Your task to perform on an android device: Toggle the flashlight Image 0: 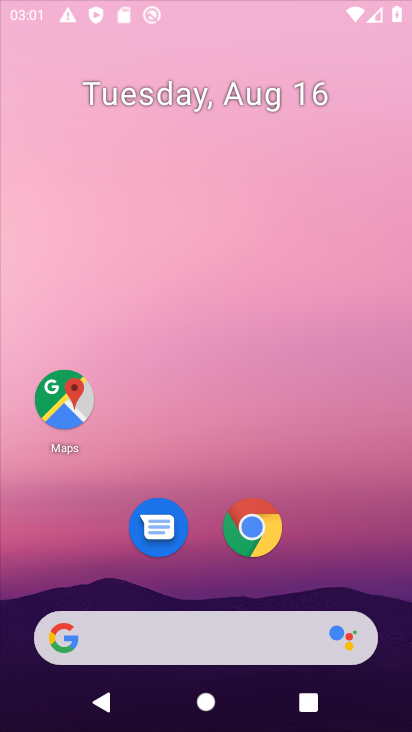
Step 0: press home button
Your task to perform on an android device: Toggle the flashlight Image 1: 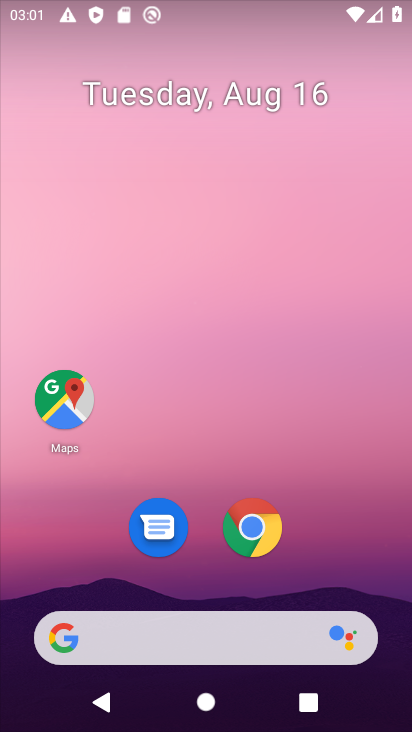
Step 1: drag from (210, 584) to (250, 40)
Your task to perform on an android device: Toggle the flashlight Image 2: 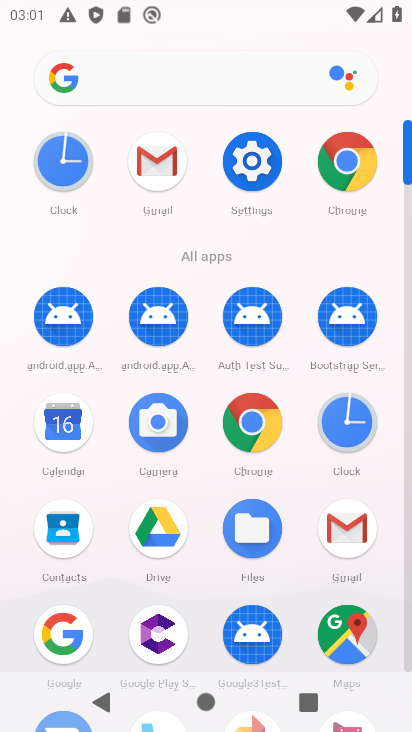
Step 2: click (254, 156)
Your task to perform on an android device: Toggle the flashlight Image 3: 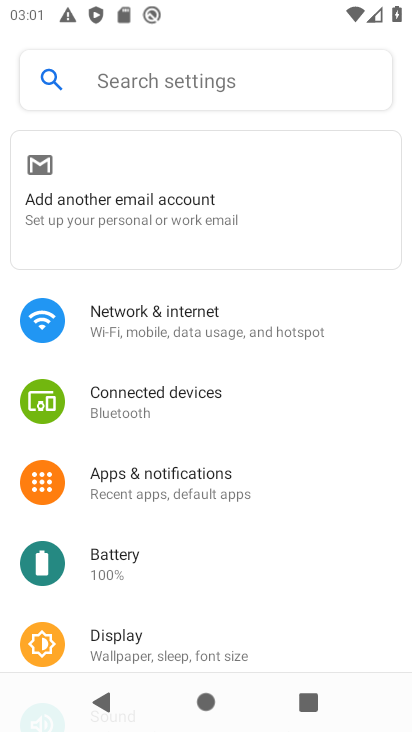
Step 3: click (166, 89)
Your task to perform on an android device: Toggle the flashlight Image 4: 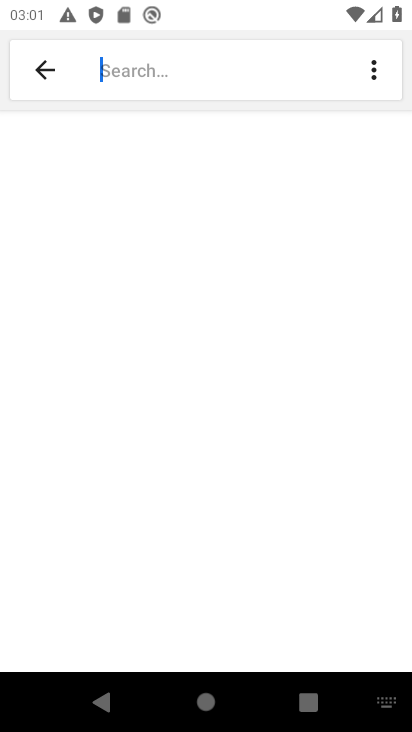
Step 4: type "flashlight"
Your task to perform on an android device: Toggle the flashlight Image 5: 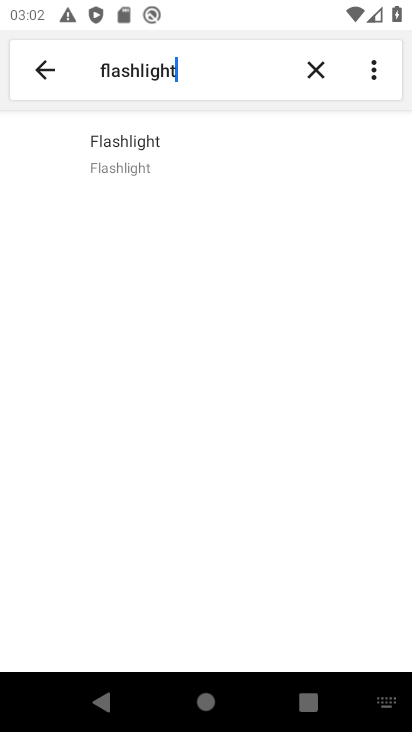
Step 5: click (130, 146)
Your task to perform on an android device: Toggle the flashlight Image 6: 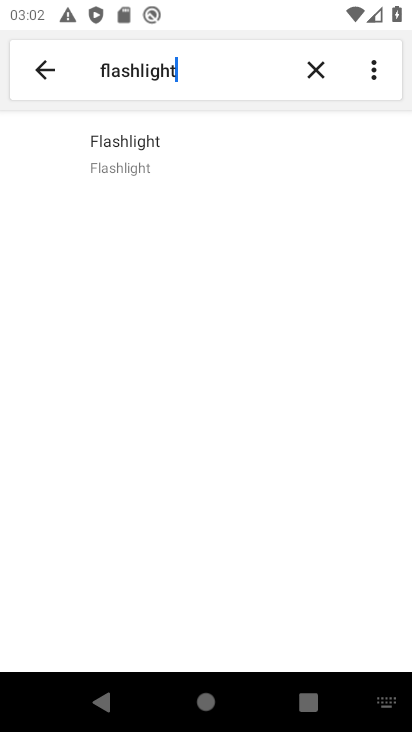
Step 6: click (140, 154)
Your task to perform on an android device: Toggle the flashlight Image 7: 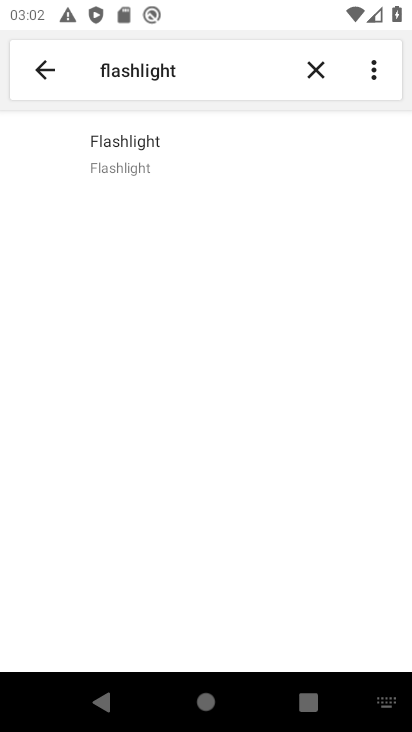
Step 7: task complete